Your task to perform on an android device: Open the stopwatch Image 0: 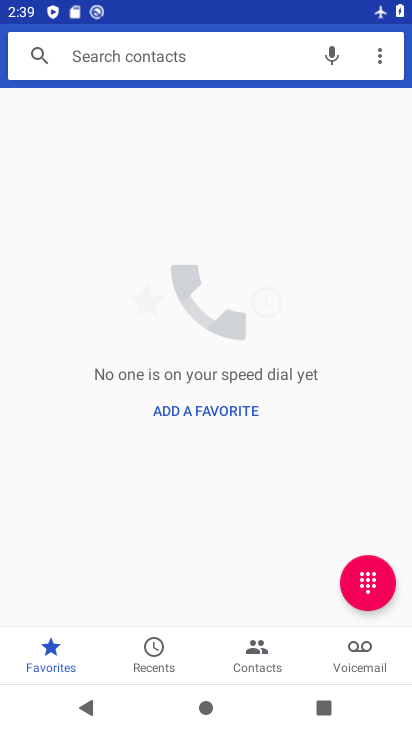
Step 0: press home button
Your task to perform on an android device: Open the stopwatch Image 1: 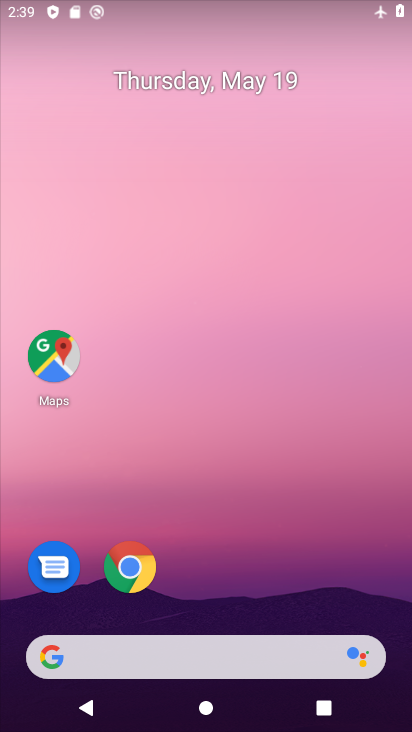
Step 1: drag from (208, 611) to (180, 64)
Your task to perform on an android device: Open the stopwatch Image 2: 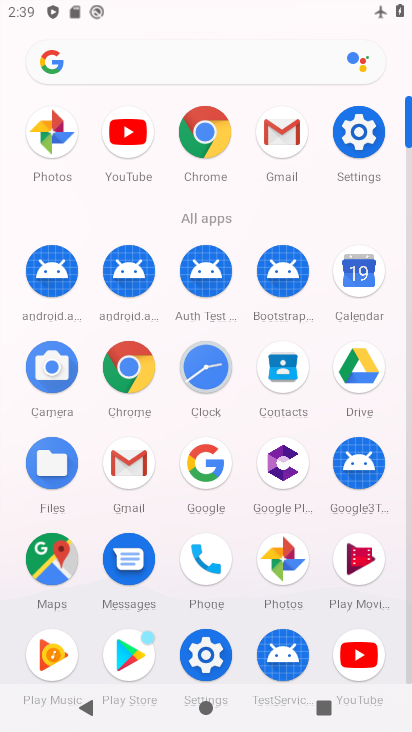
Step 2: click (213, 374)
Your task to perform on an android device: Open the stopwatch Image 3: 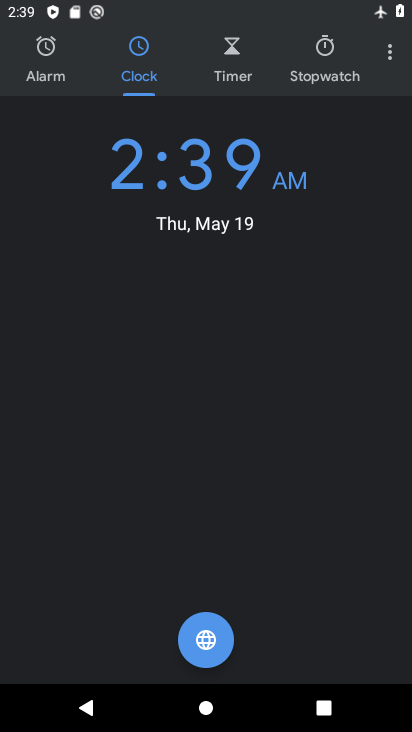
Step 3: click (320, 69)
Your task to perform on an android device: Open the stopwatch Image 4: 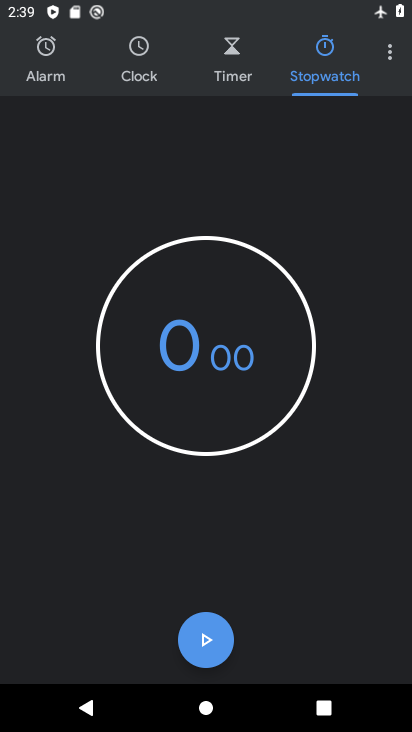
Step 4: task complete